Your task to perform on an android device: Open Google Maps and go to "Timeline" Image 0: 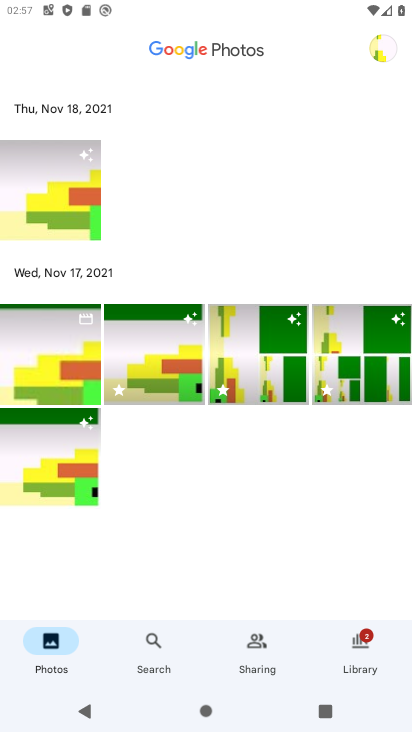
Step 0: press home button
Your task to perform on an android device: Open Google Maps and go to "Timeline" Image 1: 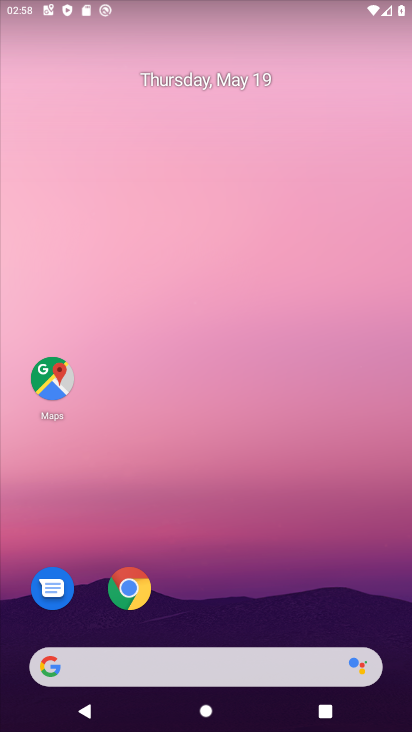
Step 1: click (45, 373)
Your task to perform on an android device: Open Google Maps and go to "Timeline" Image 2: 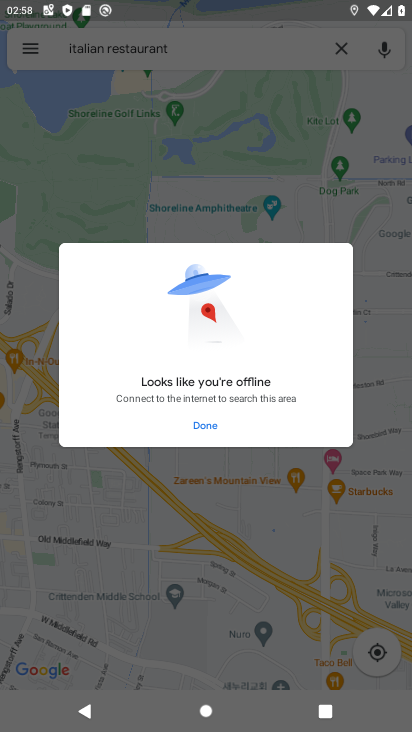
Step 2: click (203, 424)
Your task to perform on an android device: Open Google Maps and go to "Timeline" Image 3: 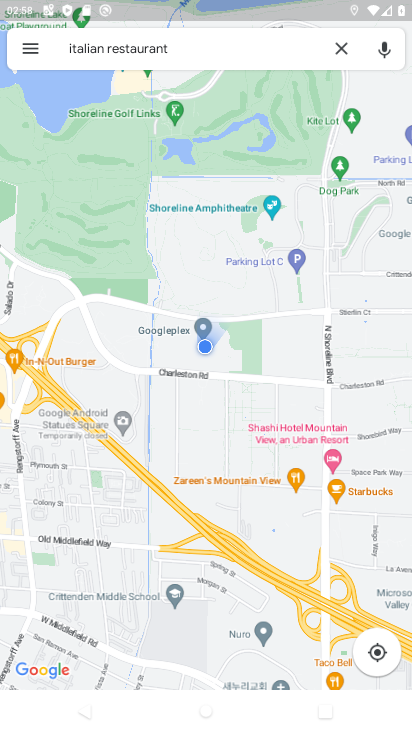
Step 3: click (29, 55)
Your task to perform on an android device: Open Google Maps and go to "Timeline" Image 4: 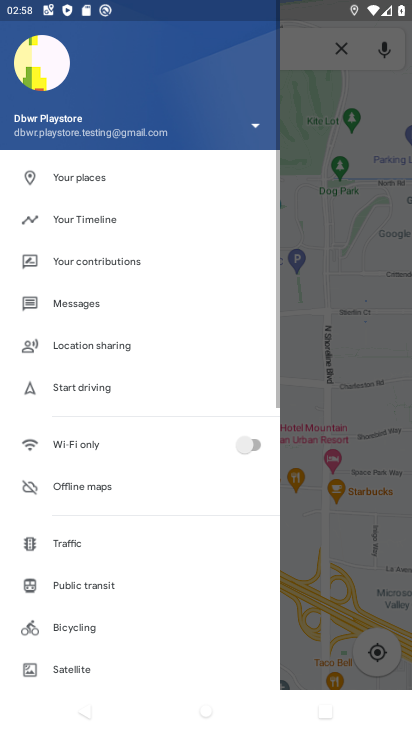
Step 4: click (91, 217)
Your task to perform on an android device: Open Google Maps and go to "Timeline" Image 5: 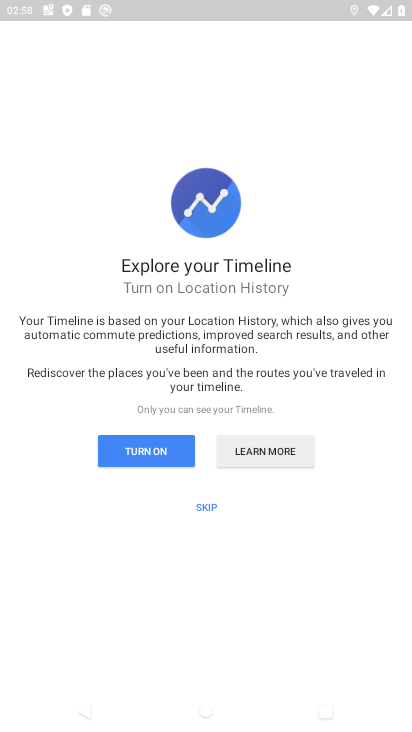
Step 5: click (215, 521)
Your task to perform on an android device: Open Google Maps and go to "Timeline" Image 6: 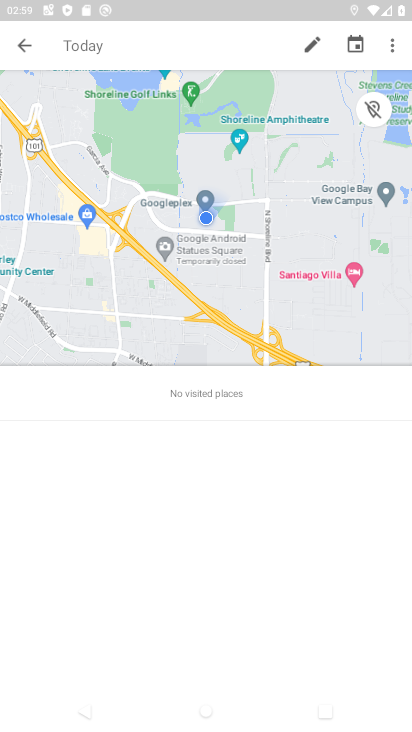
Step 6: task complete